Your task to perform on an android device: Show me the alarms in the clock app Image 0: 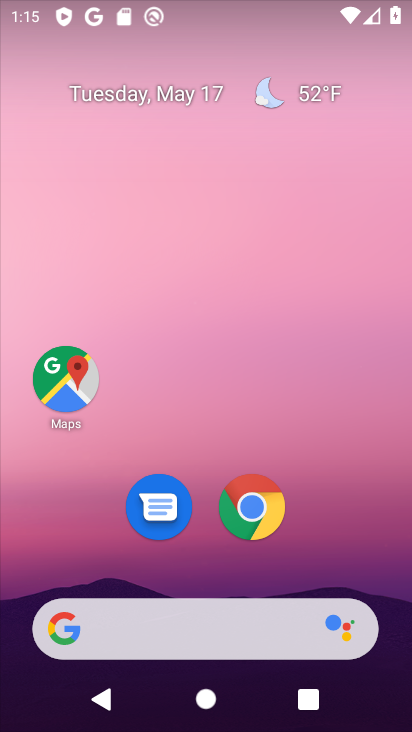
Step 0: drag from (203, 559) to (162, 126)
Your task to perform on an android device: Show me the alarms in the clock app Image 1: 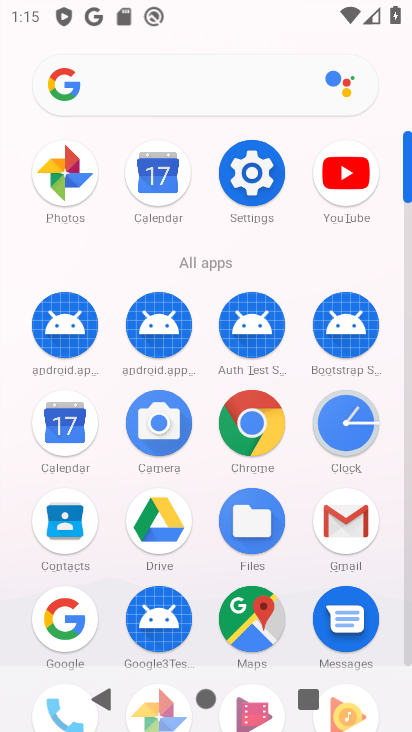
Step 1: click (338, 421)
Your task to perform on an android device: Show me the alarms in the clock app Image 2: 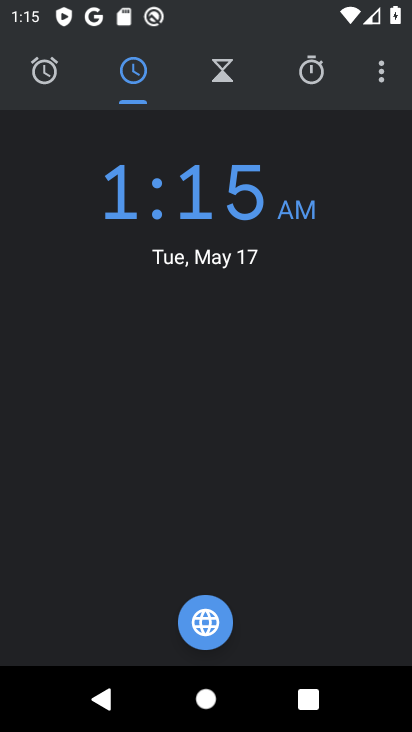
Step 2: click (43, 84)
Your task to perform on an android device: Show me the alarms in the clock app Image 3: 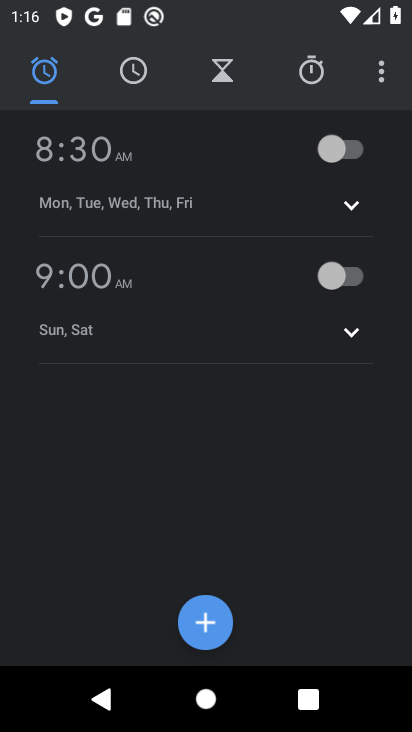
Step 3: task complete